Your task to perform on an android device: Go to sound settings Image 0: 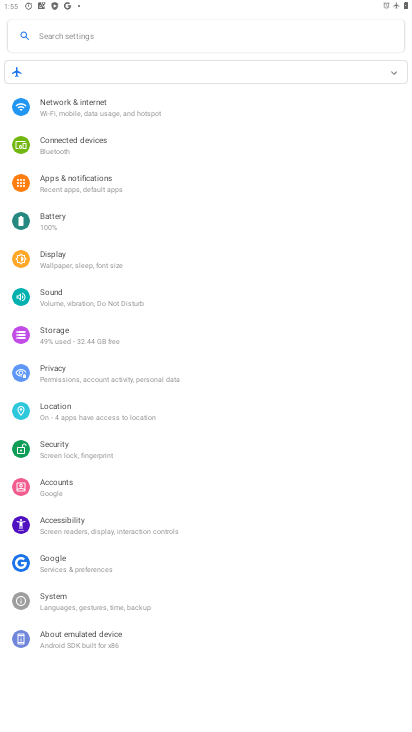
Step 0: click (50, 299)
Your task to perform on an android device: Go to sound settings Image 1: 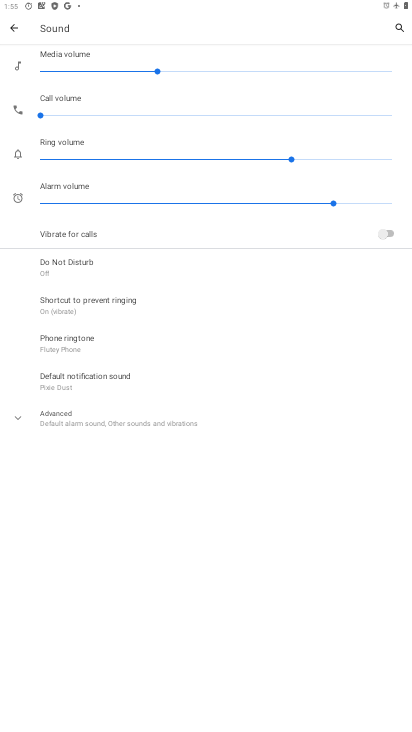
Step 1: task complete